Your task to perform on an android device: Open the calendar app, open the side menu, and click the "Day" option Image 0: 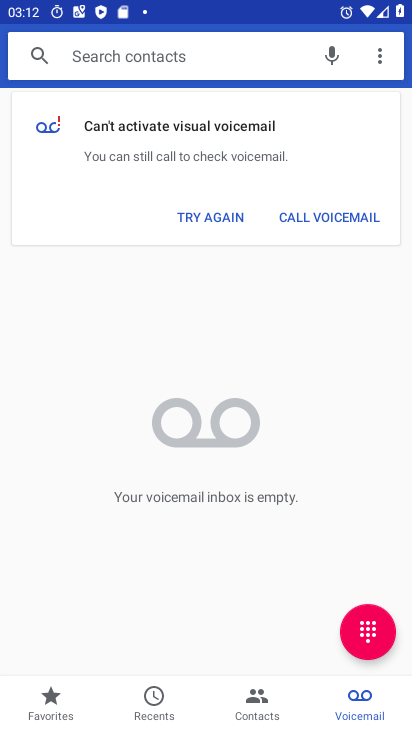
Step 0: press home button
Your task to perform on an android device: Open the calendar app, open the side menu, and click the "Day" option Image 1: 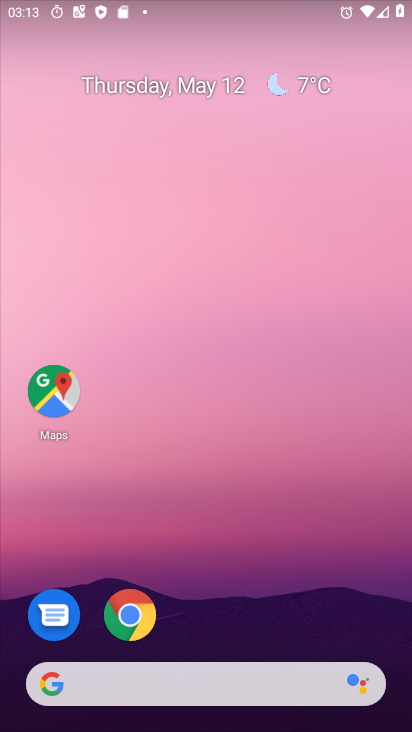
Step 1: drag from (182, 684) to (261, 71)
Your task to perform on an android device: Open the calendar app, open the side menu, and click the "Day" option Image 2: 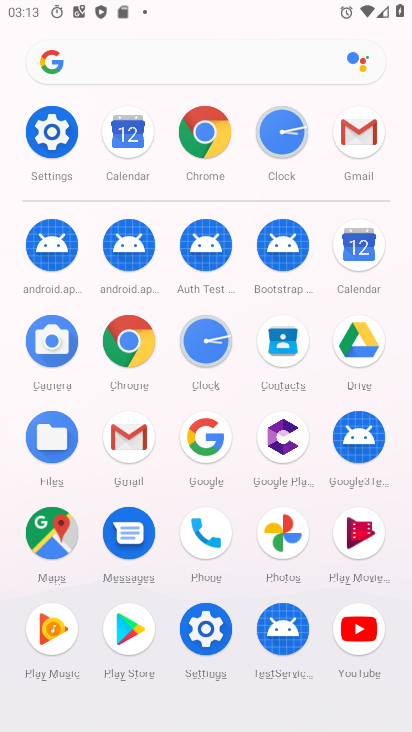
Step 2: click (363, 260)
Your task to perform on an android device: Open the calendar app, open the side menu, and click the "Day" option Image 3: 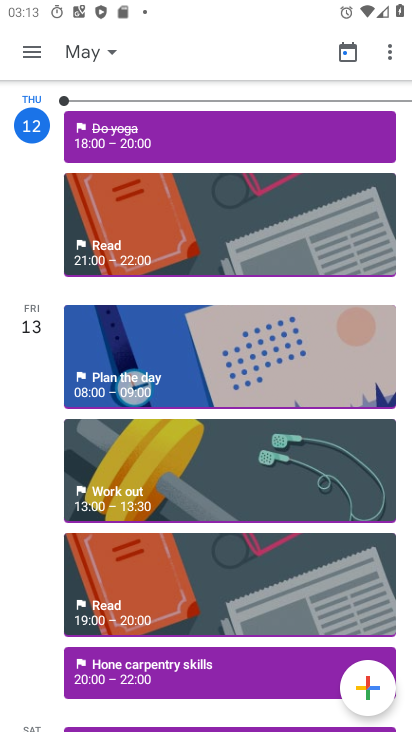
Step 3: click (26, 48)
Your task to perform on an android device: Open the calendar app, open the side menu, and click the "Day" option Image 4: 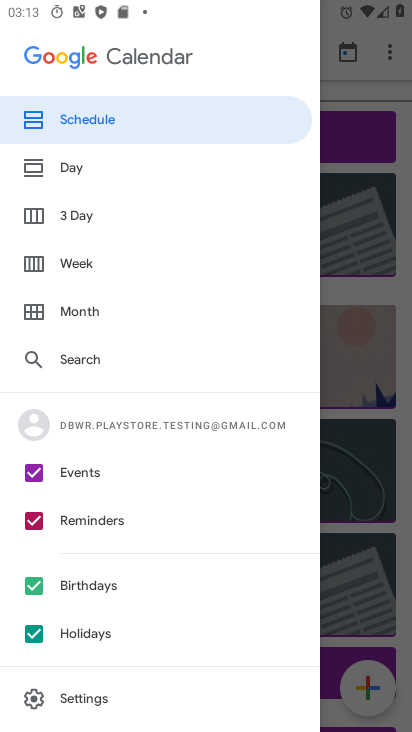
Step 4: click (56, 165)
Your task to perform on an android device: Open the calendar app, open the side menu, and click the "Day" option Image 5: 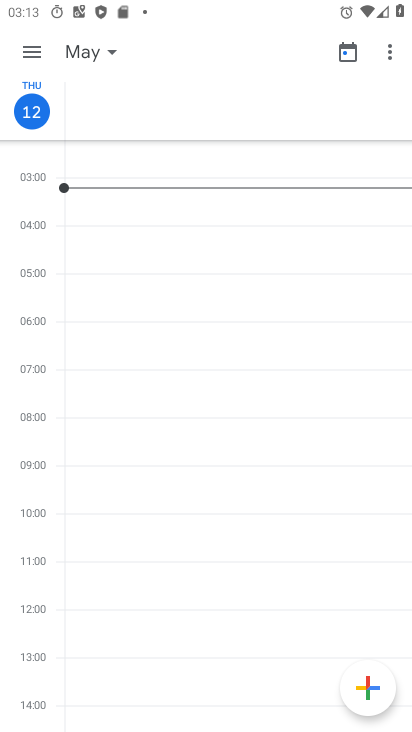
Step 5: task complete